Your task to perform on an android device: Search for sushi restaurants on Maps Image 0: 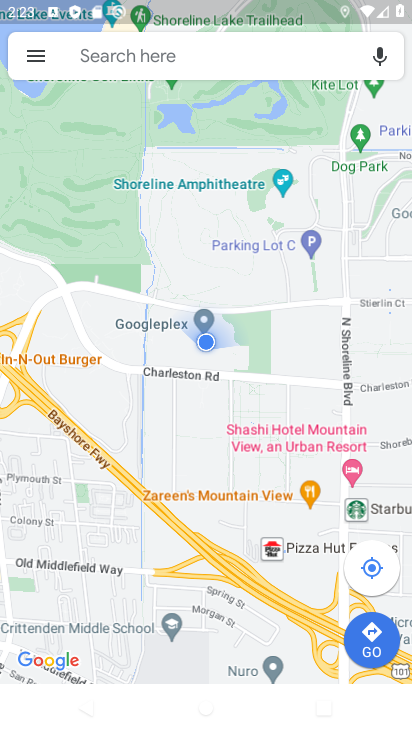
Step 0: press home button
Your task to perform on an android device: Search for sushi restaurants on Maps Image 1: 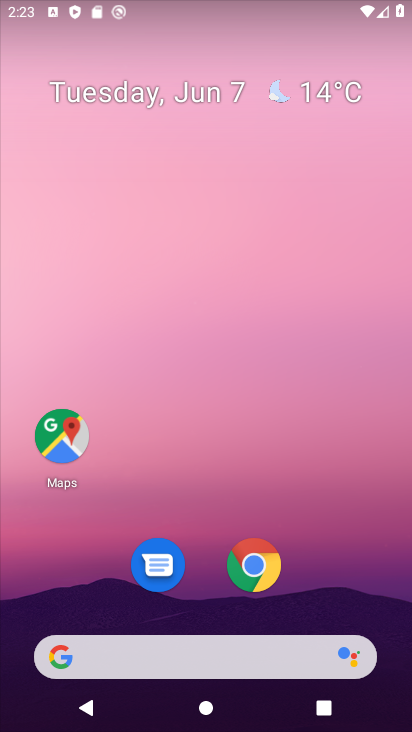
Step 1: drag from (254, 666) to (253, 85)
Your task to perform on an android device: Search for sushi restaurants on Maps Image 2: 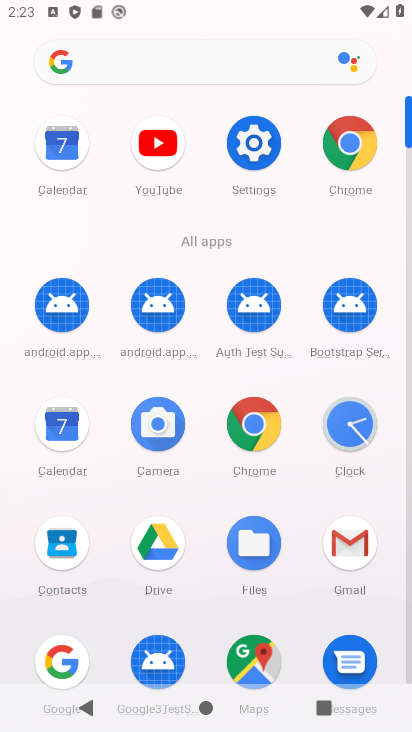
Step 2: click (253, 653)
Your task to perform on an android device: Search for sushi restaurants on Maps Image 3: 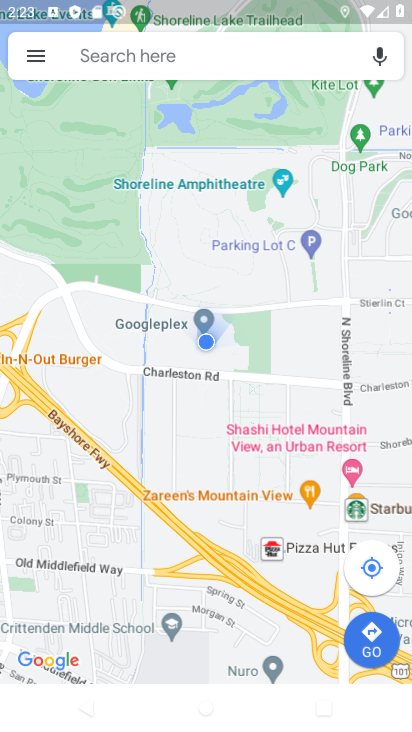
Step 3: click (150, 68)
Your task to perform on an android device: Search for sushi restaurants on Maps Image 4: 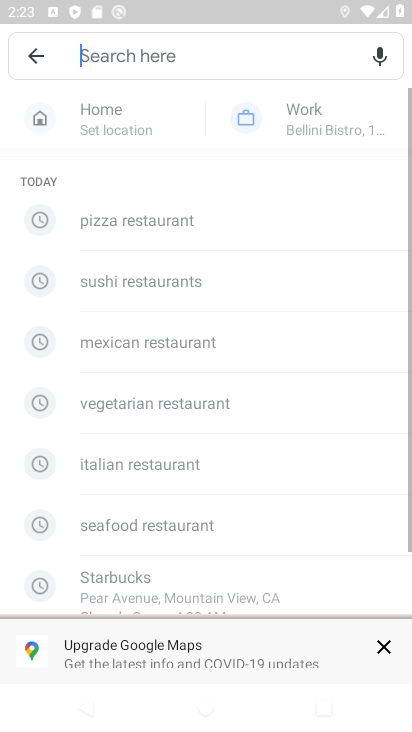
Step 4: click (236, 53)
Your task to perform on an android device: Search for sushi restaurants on Maps Image 5: 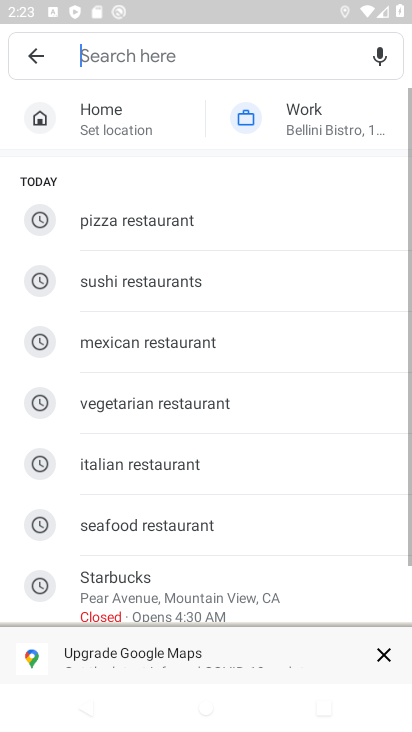
Step 5: click (236, 53)
Your task to perform on an android device: Search for sushi restaurants on Maps Image 6: 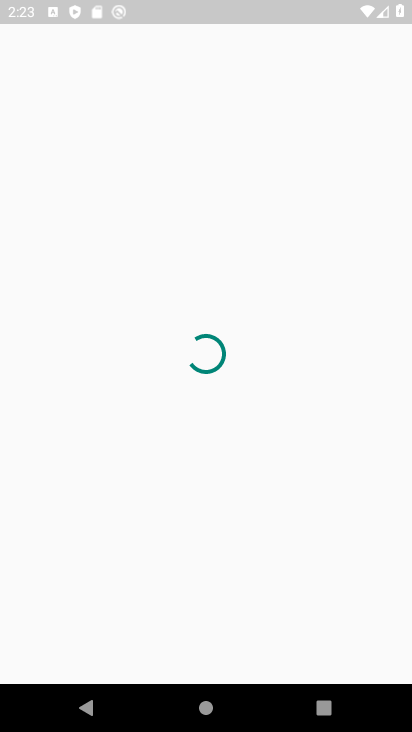
Step 6: press back button
Your task to perform on an android device: Search for sushi restaurants on Maps Image 7: 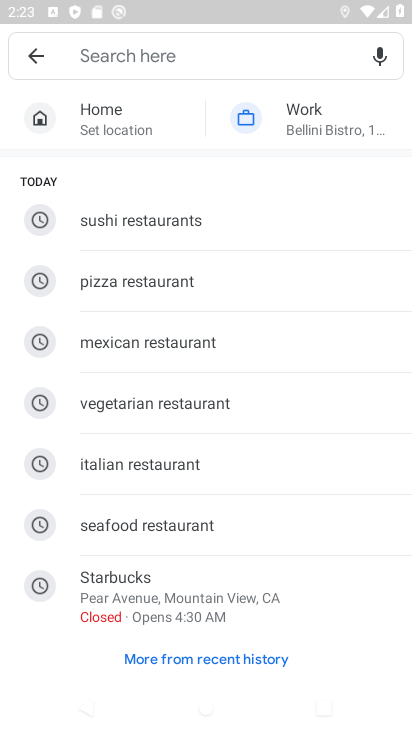
Step 7: click (133, 225)
Your task to perform on an android device: Search for sushi restaurants on Maps Image 8: 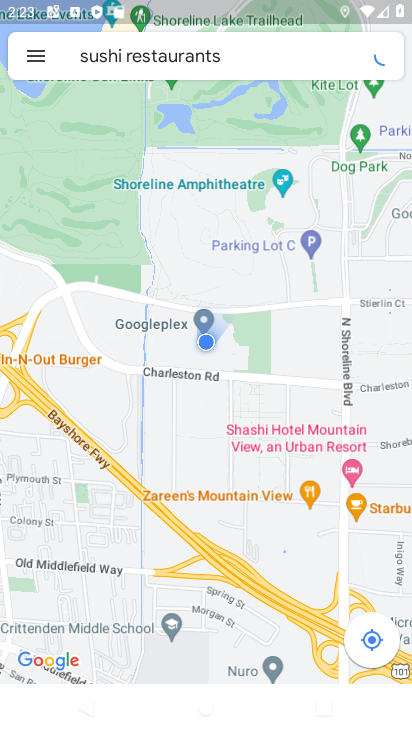
Step 8: task complete